Your task to perform on an android device: turn on airplane mode Image 0: 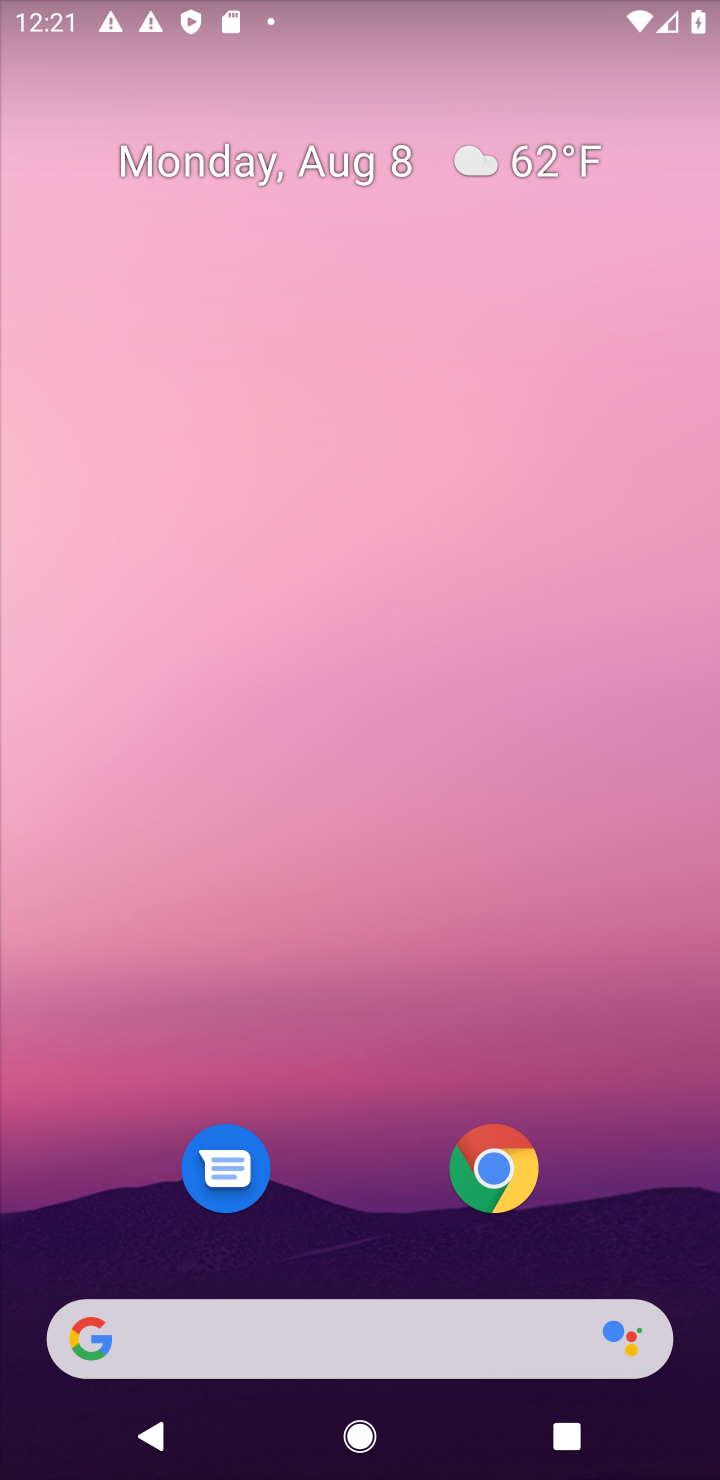
Step 0: drag from (429, 1260) to (210, 250)
Your task to perform on an android device: turn on airplane mode Image 1: 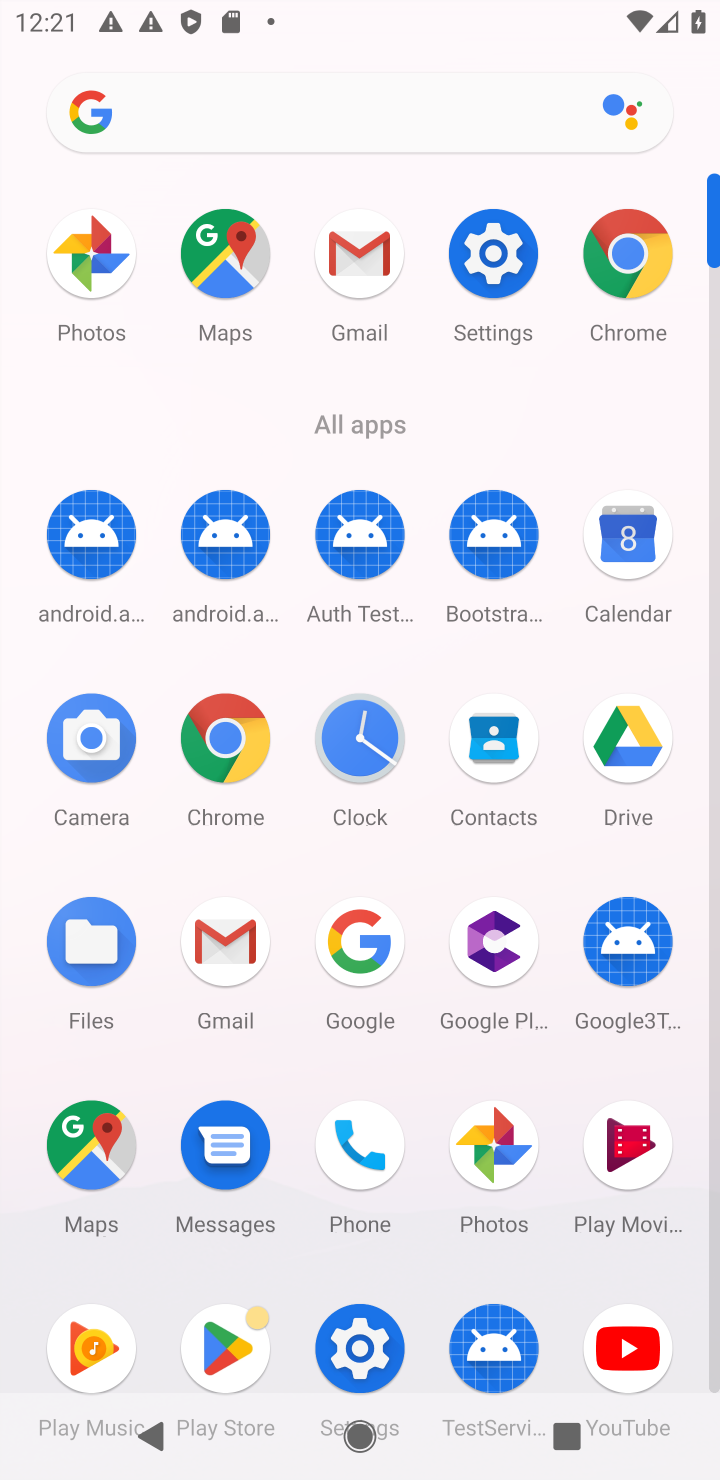
Step 1: click (475, 331)
Your task to perform on an android device: turn on airplane mode Image 2: 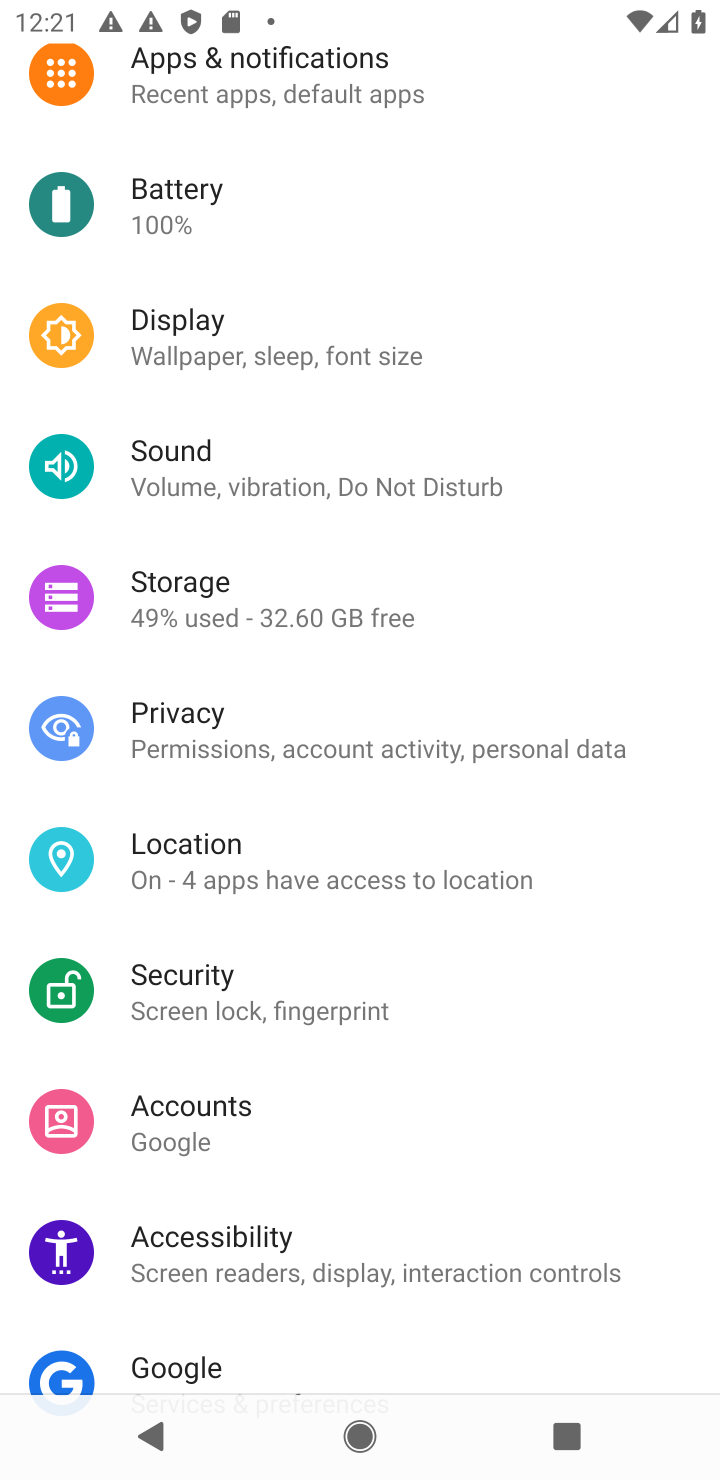
Step 2: drag from (352, 253) to (292, 1063)
Your task to perform on an android device: turn on airplane mode Image 3: 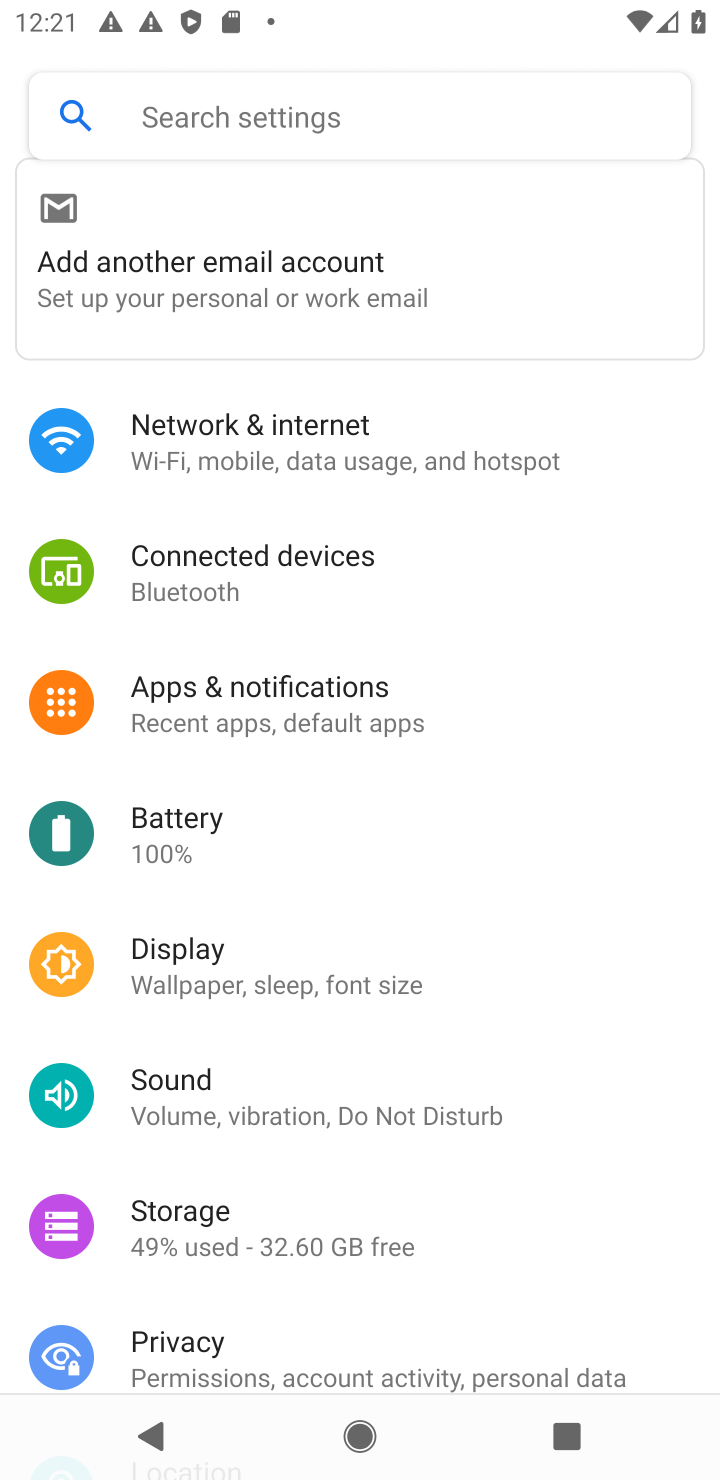
Step 3: click (281, 431)
Your task to perform on an android device: turn on airplane mode Image 4: 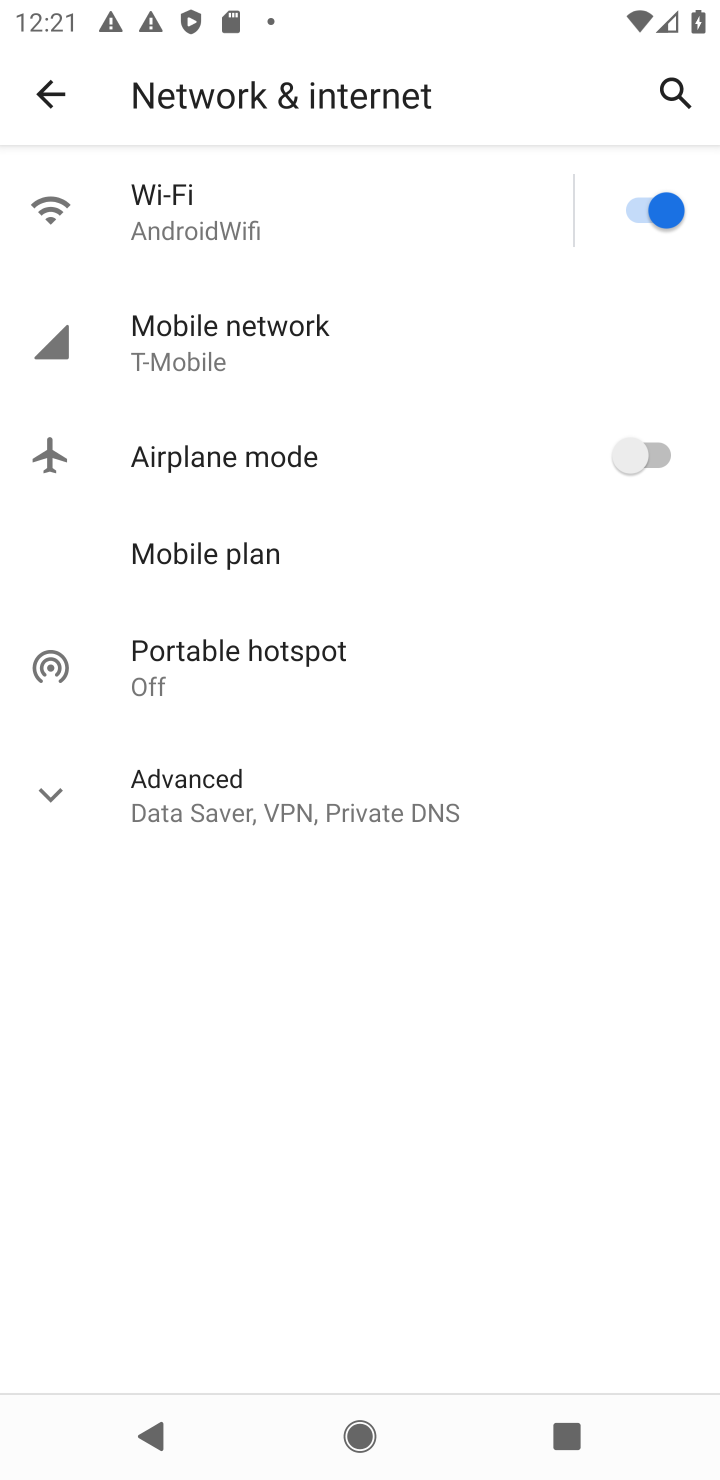
Step 4: click (632, 439)
Your task to perform on an android device: turn on airplane mode Image 5: 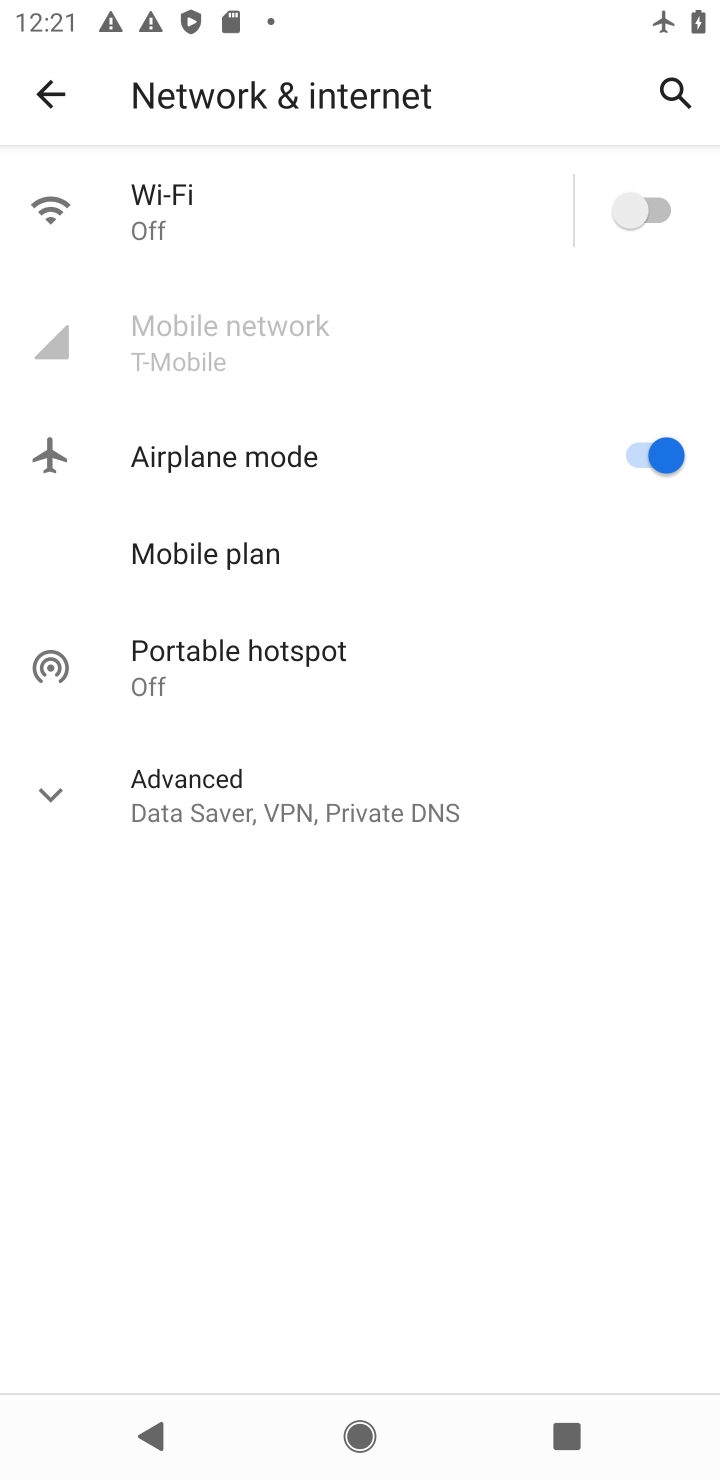
Step 5: click (649, 166)
Your task to perform on an android device: turn on airplane mode Image 6: 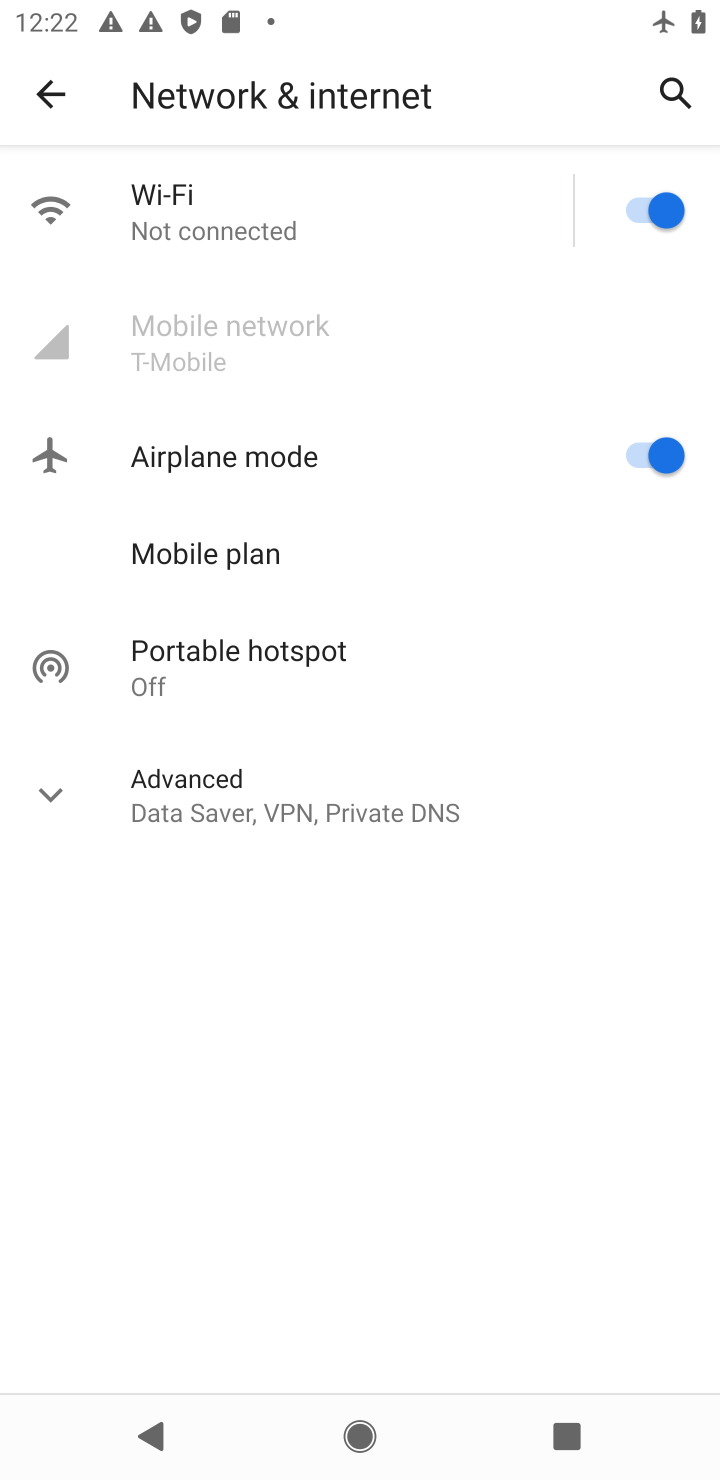
Step 6: task complete